Your task to perform on an android device: When is my next meeting? Image 0: 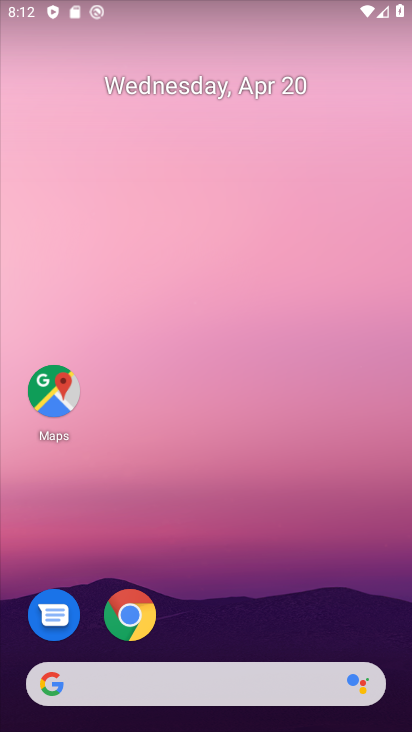
Step 0: drag from (224, 514) to (241, 119)
Your task to perform on an android device: When is my next meeting? Image 1: 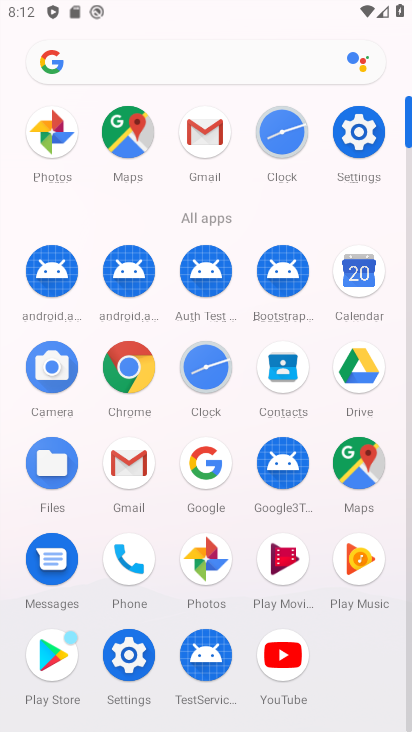
Step 1: click (359, 265)
Your task to perform on an android device: When is my next meeting? Image 2: 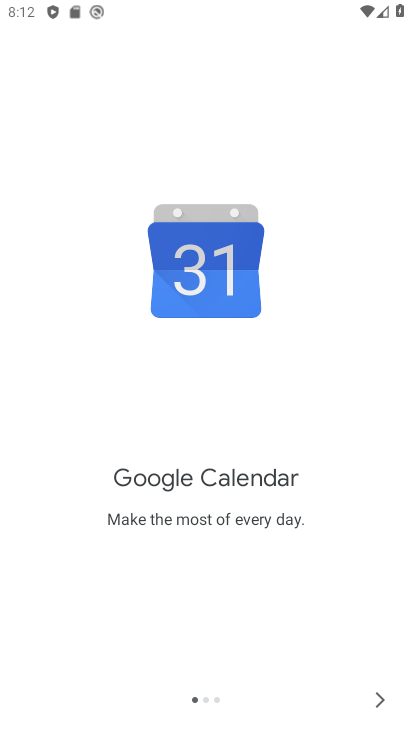
Step 2: click (384, 703)
Your task to perform on an android device: When is my next meeting? Image 3: 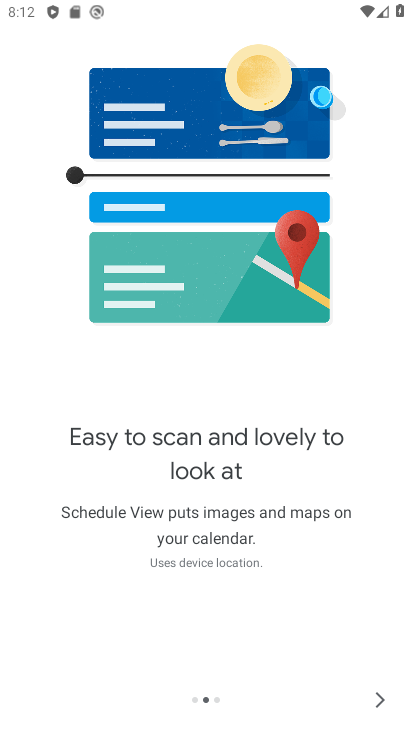
Step 3: click (384, 703)
Your task to perform on an android device: When is my next meeting? Image 4: 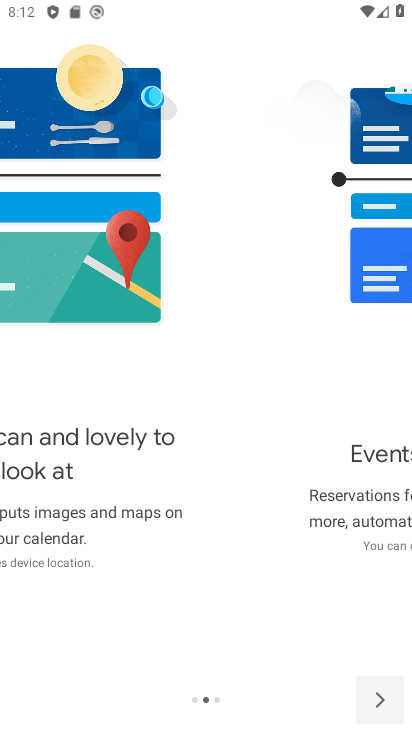
Step 4: click (384, 703)
Your task to perform on an android device: When is my next meeting? Image 5: 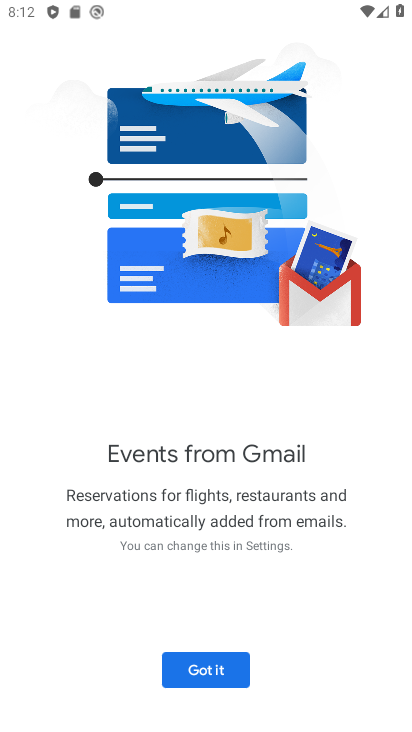
Step 5: click (215, 673)
Your task to perform on an android device: When is my next meeting? Image 6: 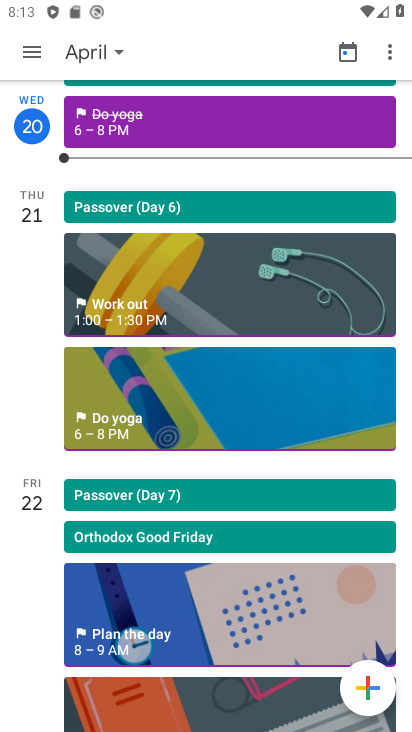
Step 6: click (115, 48)
Your task to perform on an android device: When is my next meeting? Image 7: 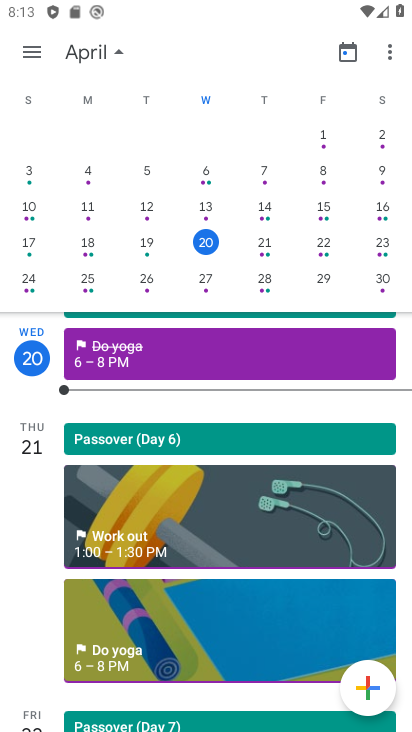
Step 7: click (327, 242)
Your task to perform on an android device: When is my next meeting? Image 8: 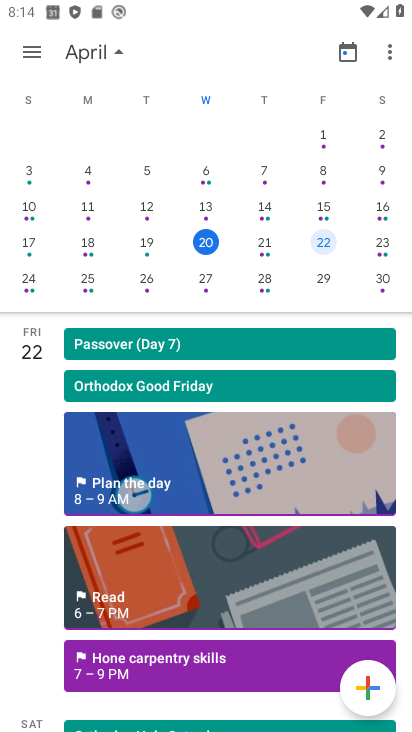
Step 8: task complete